Your task to perform on an android device: remove spam from my inbox in the gmail app Image 0: 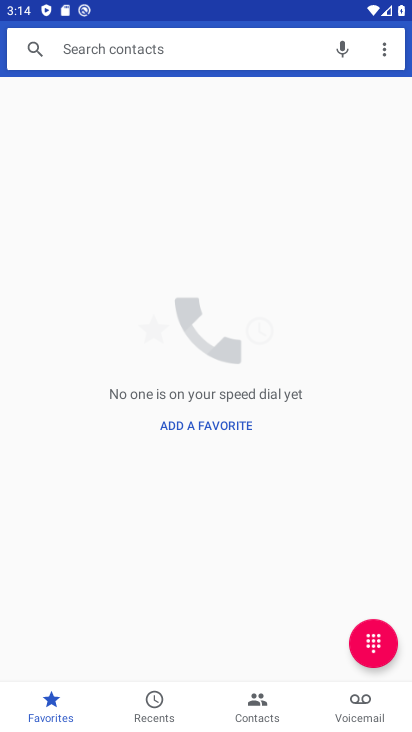
Step 0: press home button
Your task to perform on an android device: remove spam from my inbox in the gmail app Image 1: 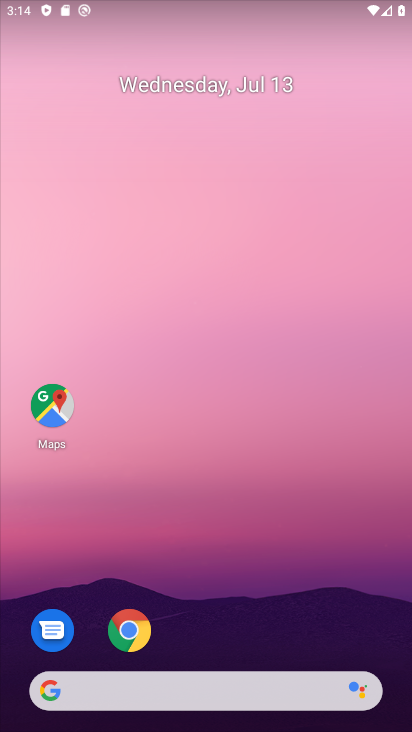
Step 1: drag from (264, 571) to (259, 99)
Your task to perform on an android device: remove spam from my inbox in the gmail app Image 2: 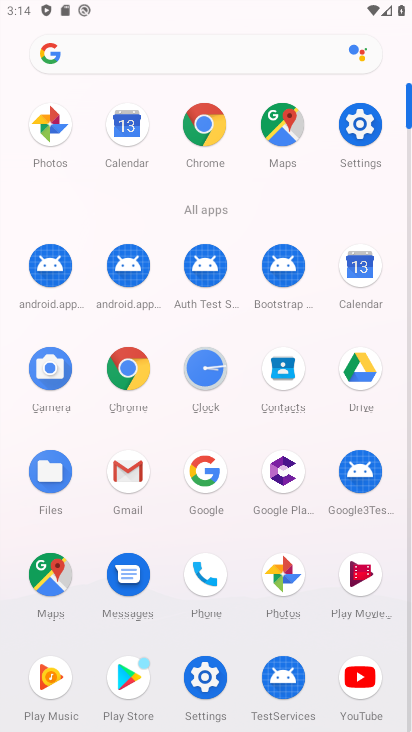
Step 2: click (126, 472)
Your task to perform on an android device: remove spam from my inbox in the gmail app Image 3: 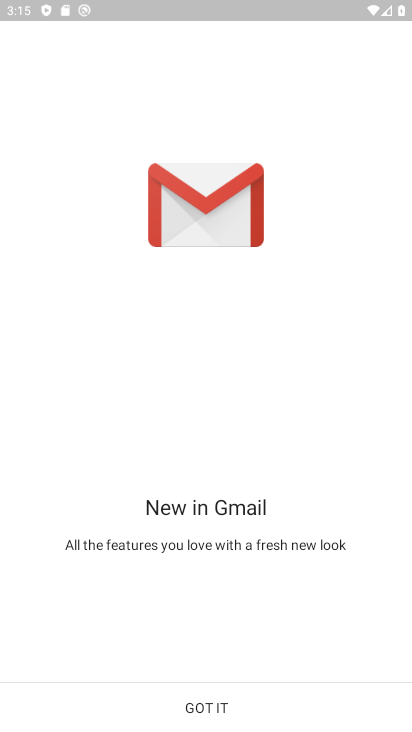
Step 3: click (203, 706)
Your task to perform on an android device: remove spam from my inbox in the gmail app Image 4: 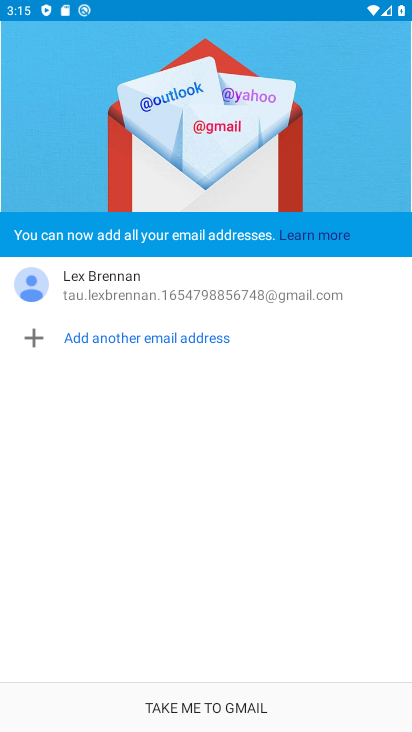
Step 4: click (203, 706)
Your task to perform on an android device: remove spam from my inbox in the gmail app Image 5: 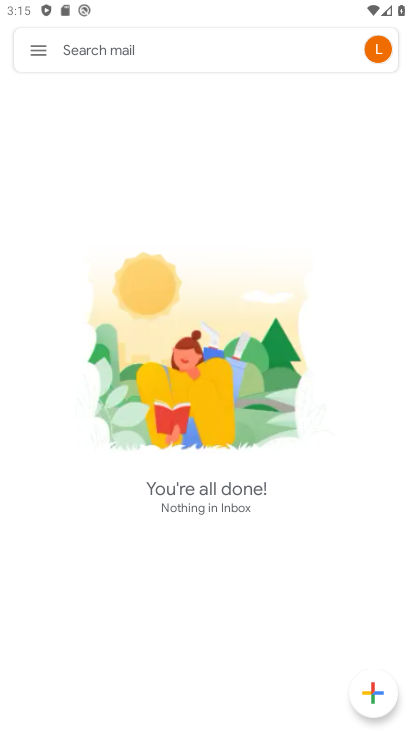
Step 5: click (31, 52)
Your task to perform on an android device: remove spam from my inbox in the gmail app Image 6: 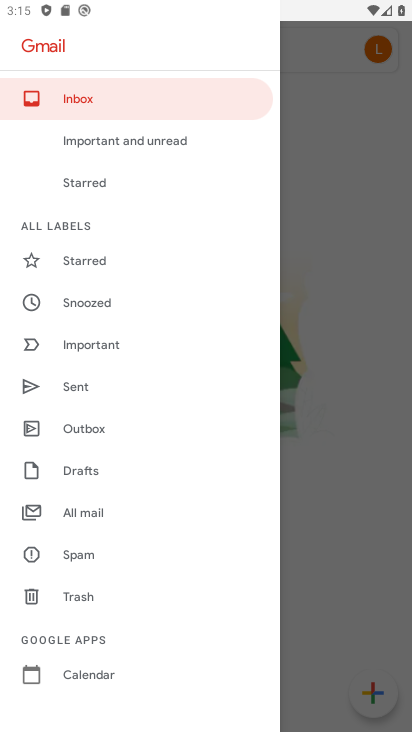
Step 6: click (78, 551)
Your task to perform on an android device: remove spam from my inbox in the gmail app Image 7: 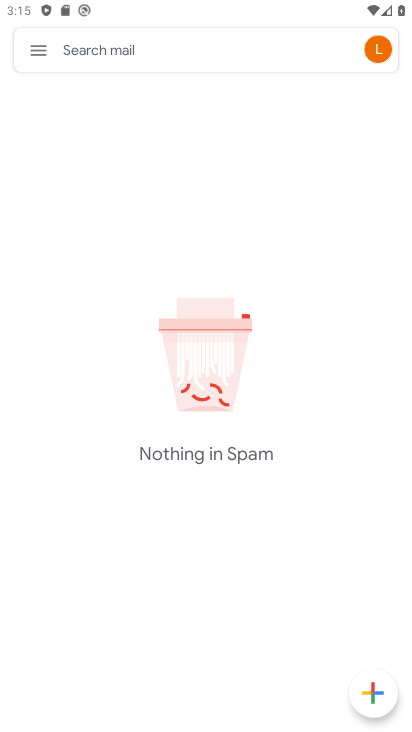
Step 7: task complete